Your task to perform on an android device: Open settings on Google Maps Image 0: 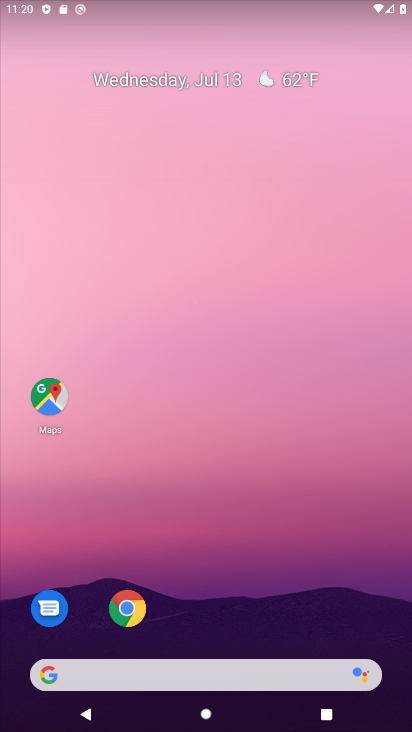
Step 0: drag from (230, 726) to (226, 116)
Your task to perform on an android device: Open settings on Google Maps Image 1: 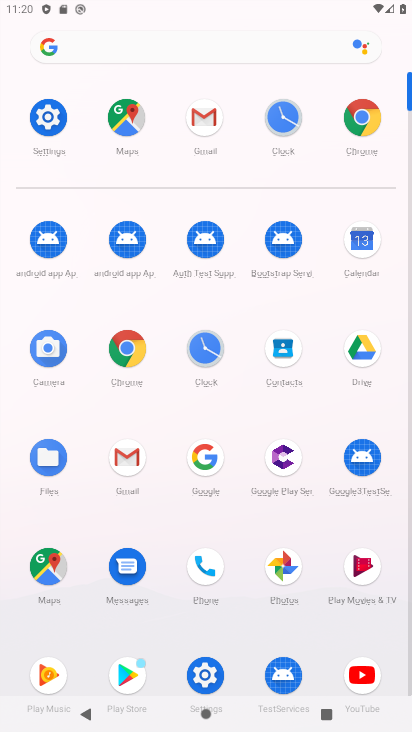
Step 1: click (53, 559)
Your task to perform on an android device: Open settings on Google Maps Image 2: 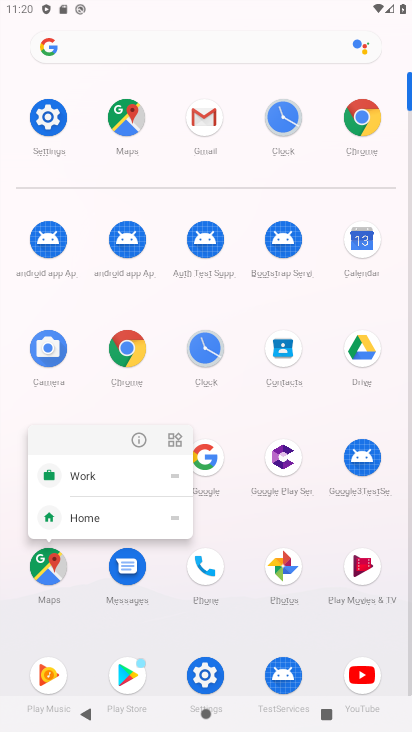
Step 2: click (46, 568)
Your task to perform on an android device: Open settings on Google Maps Image 3: 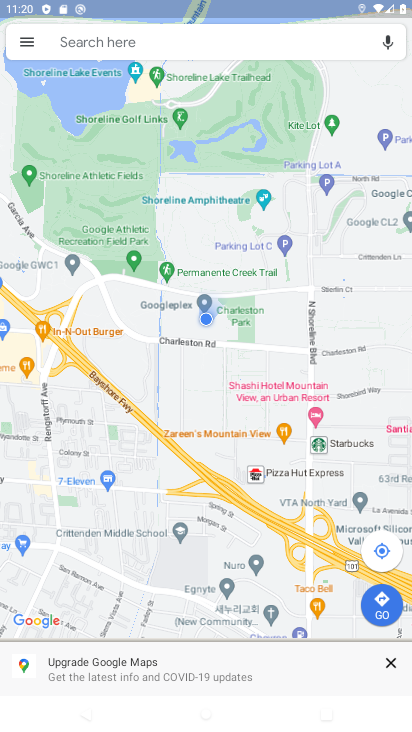
Step 3: click (31, 43)
Your task to perform on an android device: Open settings on Google Maps Image 4: 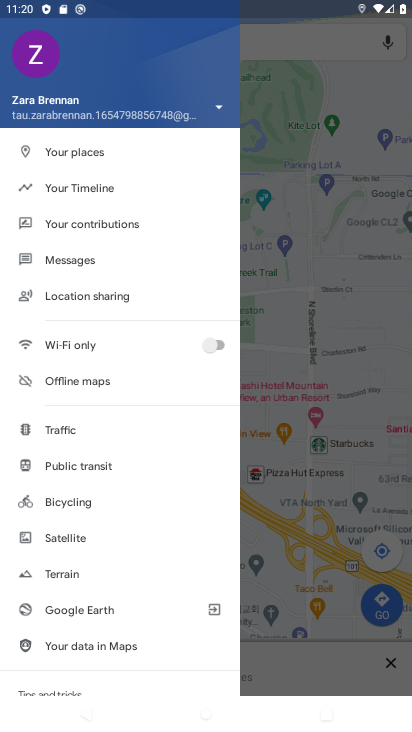
Step 4: drag from (85, 674) to (65, 316)
Your task to perform on an android device: Open settings on Google Maps Image 5: 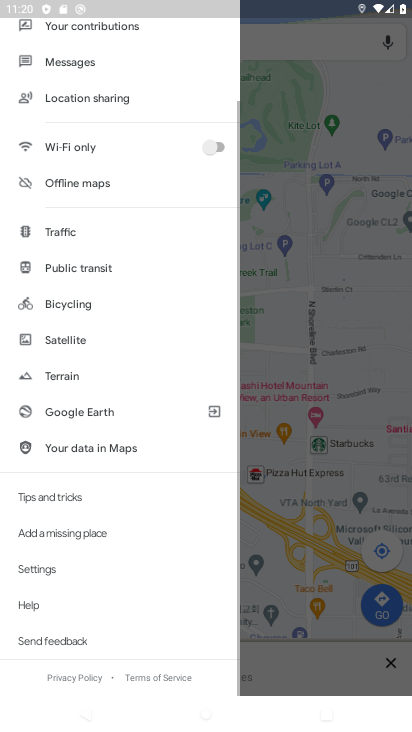
Step 5: click (38, 571)
Your task to perform on an android device: Open settings on Google Maps Image 6: 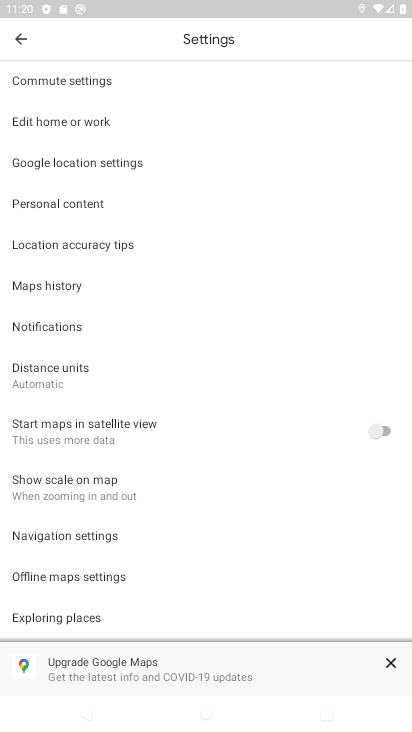
Step 6: task complete